Your task to perform on an android device: Open the stopwatch Image 0: 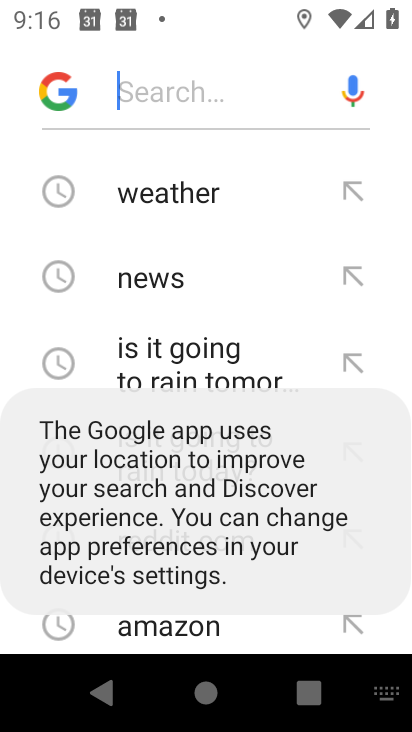
Step 0: press home button
Your task to perform on an android device: Open the stopwatch Image 1: 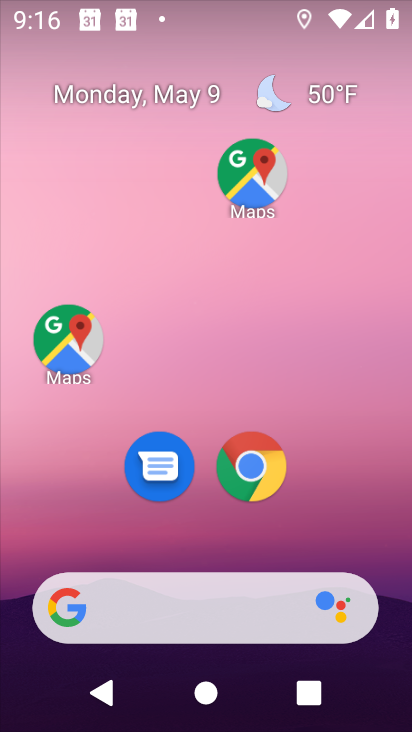
Step 1: drag from (288, 538) to (252, 157)
Your task to perform on an android device: Open the stopwatch Image 2: 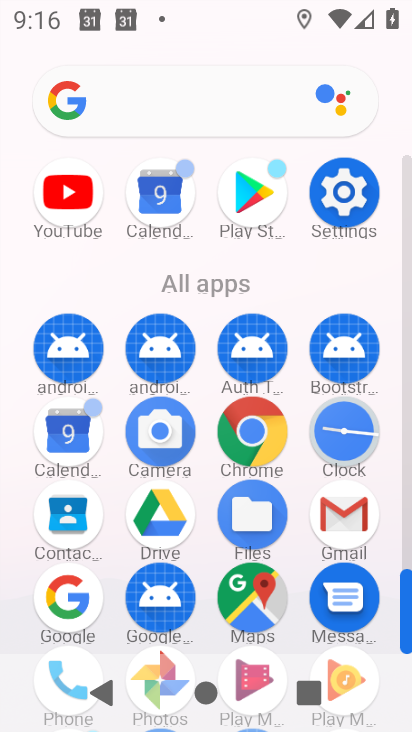
Step 2: click (346, 427)
Your task to perform on an android device: Open the stopwatch Image 3: 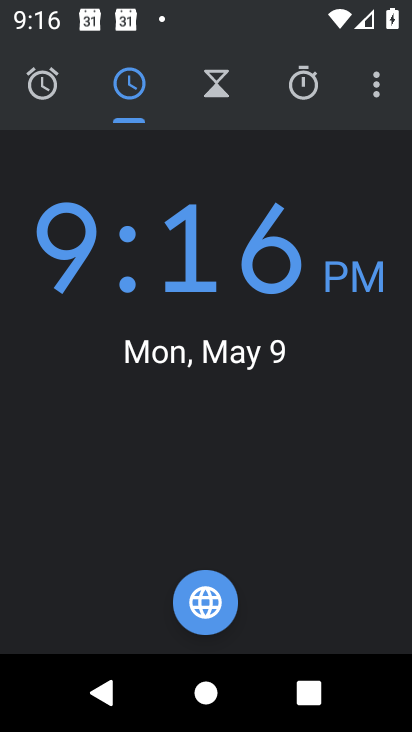
Step 3: click (307, 100)
Your task to perform on an android device: Open the stopwatch Image 4: 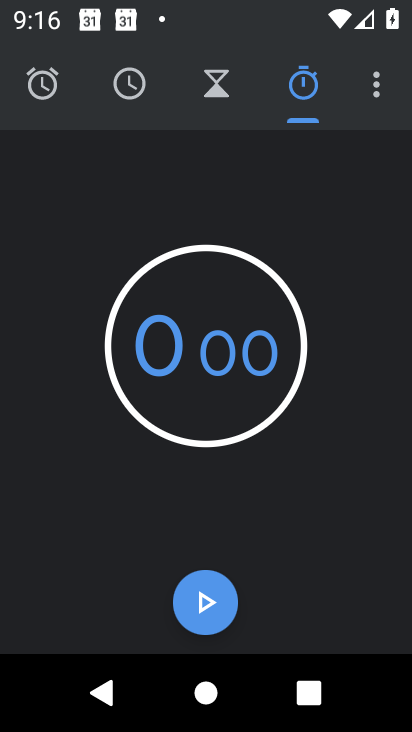
Step 4: task complete